Your task to perform on an android device: open a bookmark in the chrome app Image 0: 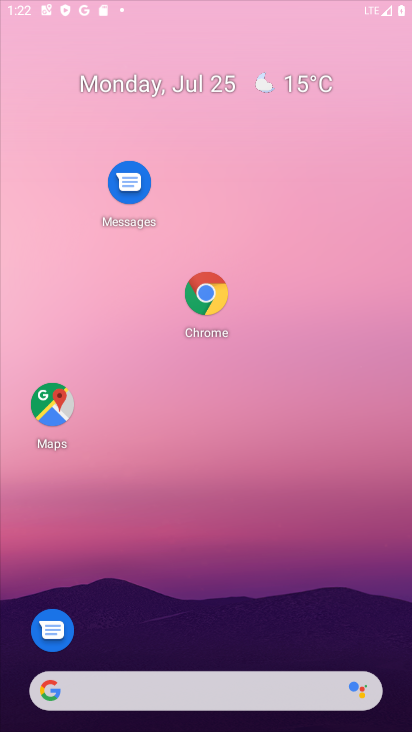
Step 0: click (294, 124)
Your task to perform on an android device: open a bookmark in the chrome app Image 1: 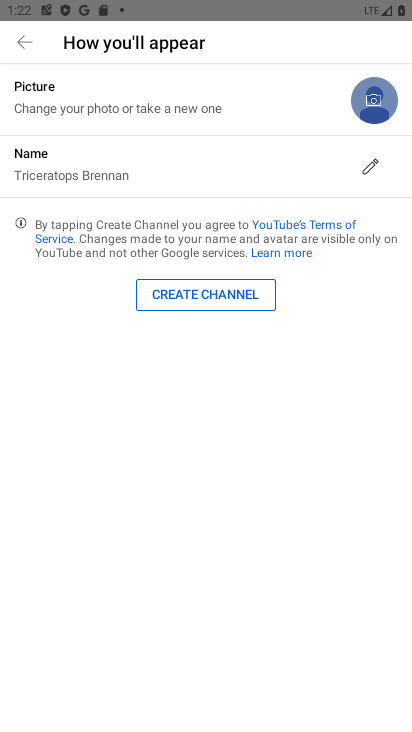
Step 1: press back button
Your task to perform on an android device: open a bookmark in the chrome app Image 2: 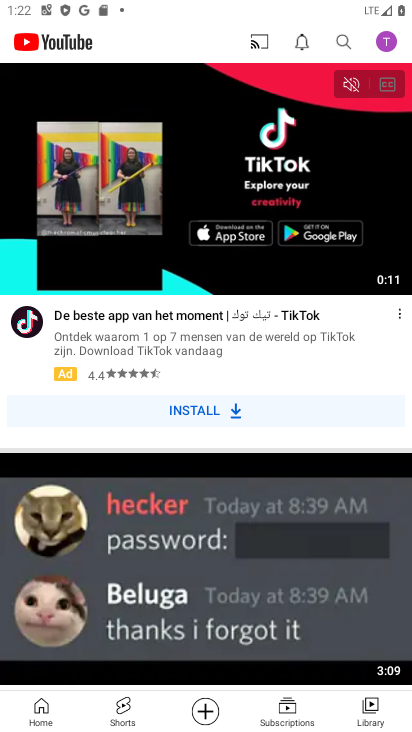
Step 2: press home button
Your task to perform on an android device: open a bookmark in the chrome app Image 3: 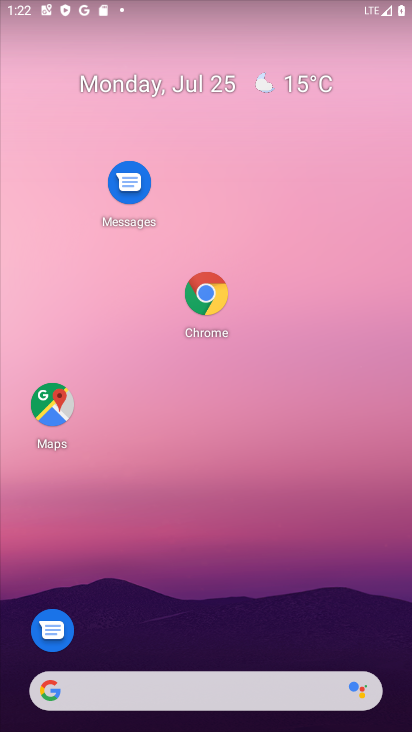
Step 3: drag from (341, 635) to (333, 259)
Your task to perform on an android device: open a bookmark in the chrome app Image 4: 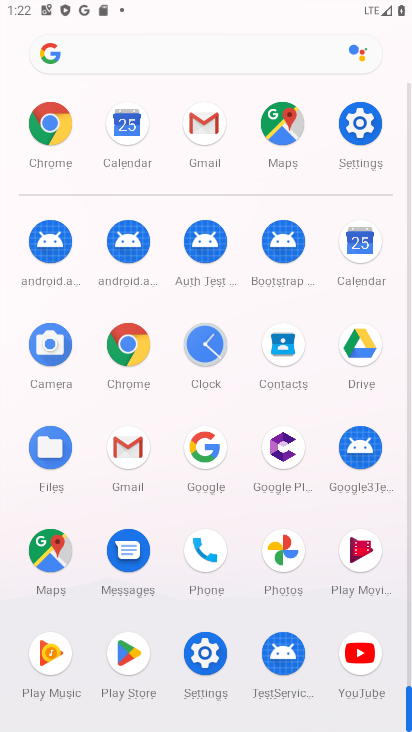
Step 4: click (51, 130)
Your task to perform on an android device: open a bookmark in the chrome app Image 5: 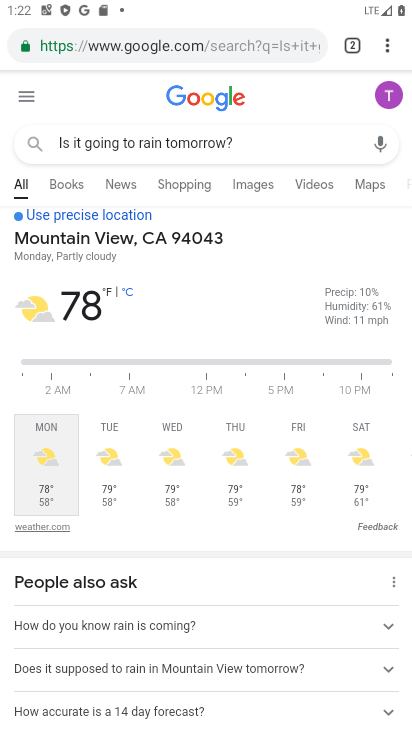
Step 5: task complete